Your task to perform on an android device: Show me the alarms in the clock app Image 0: 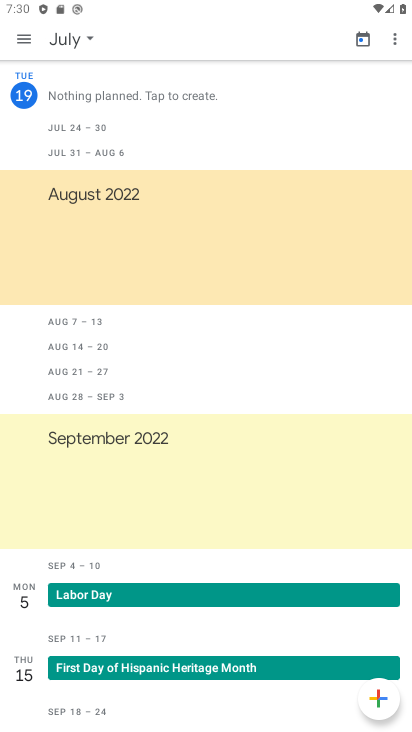
Step 0: press back button
Your task to perform on an android device: Show me the alarms in the clock app Image 1: 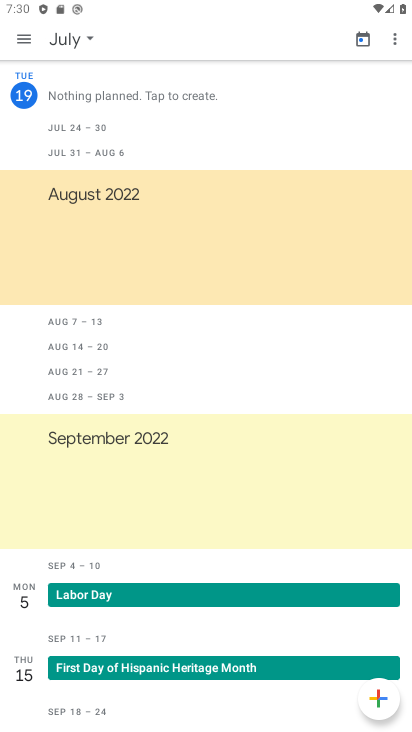
Step 1: press back button
Your task to perform on an android device: Show me the alarms in the clock app Image 2: 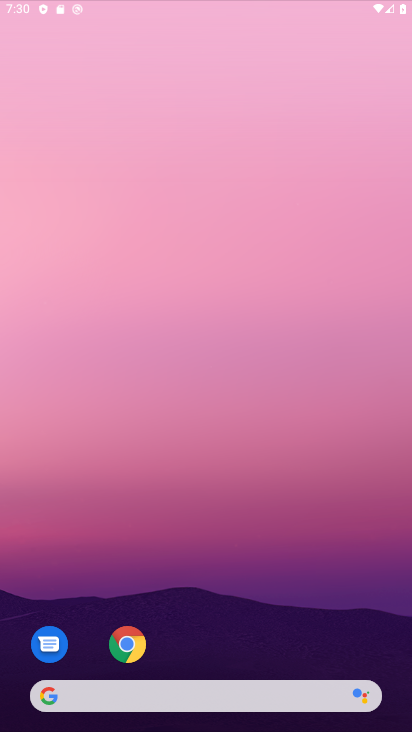
Step 2: press back button
Your task to perform on an android device: Show me the alarms in the clock app Image 3: 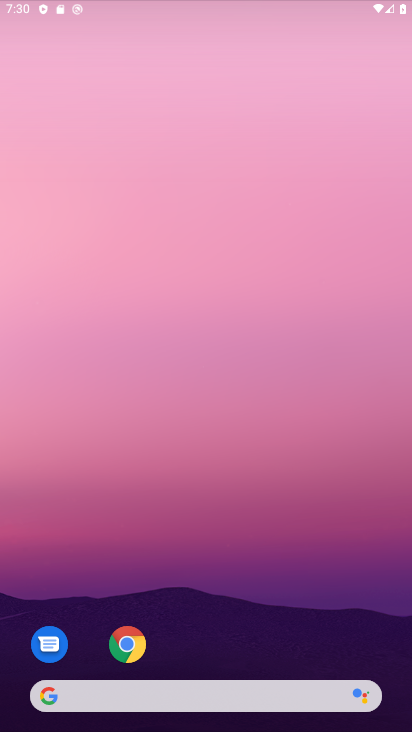
Step 3: press home button
Your task to perform on an android device: Show me the alarms in the clock app Image 4: 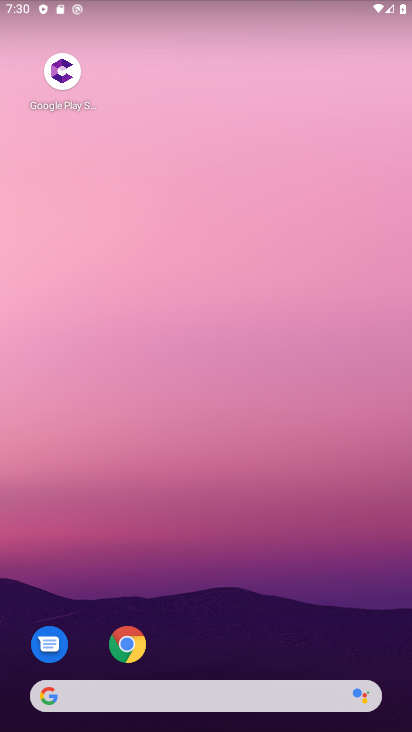
Step 4: press home button
Your task to perform on an android device: Show me the alarms in the clock app Image 5: 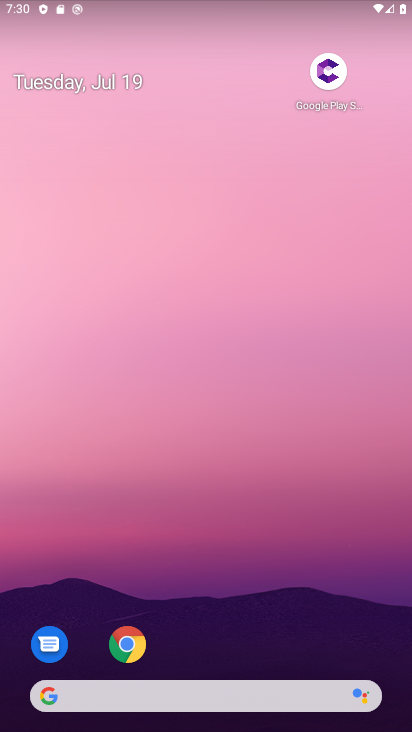
Step 5: drag from (121, 1) to (232, 160)
Your task to perform on an android device: Show me the alarms in the clock app Image 6: 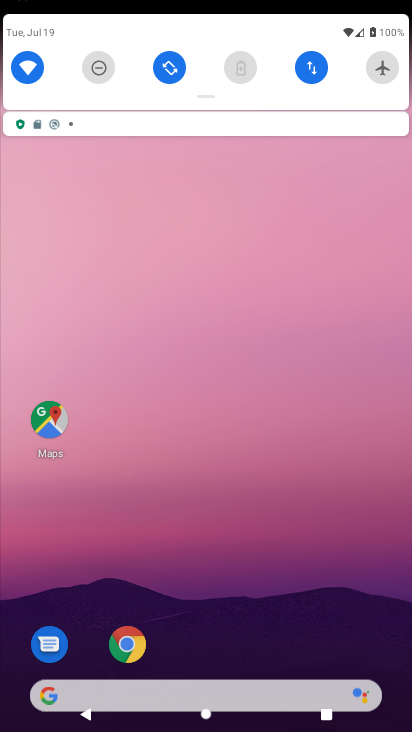
Step 6: drag from (306, 641) to (195, 50)
Your task to perform on an android device: Show me the alarms in the clock app Image 7: 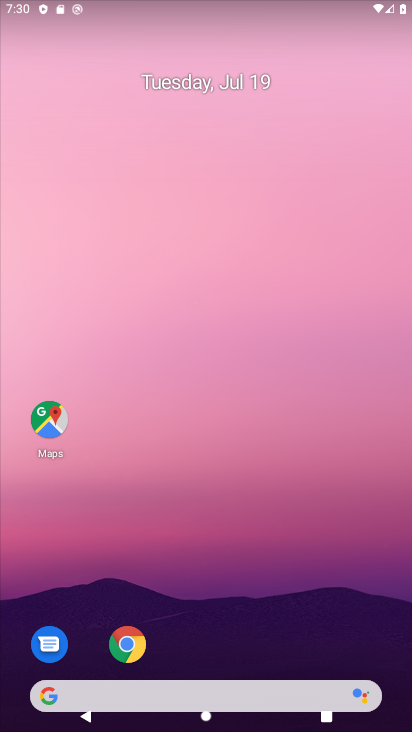
Step 7: drag from (250, 376) to (240, 153)
Your task to perform on an android device: Show me the alarms in the clock app Image 8: 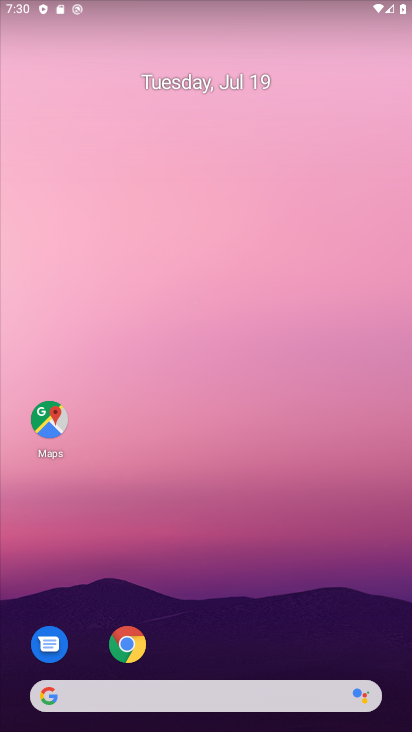
Step 8: drag from (212, 679) to (186, 227)
Your task to perform on an android device: Show me the alarms in the clock app Image 9: 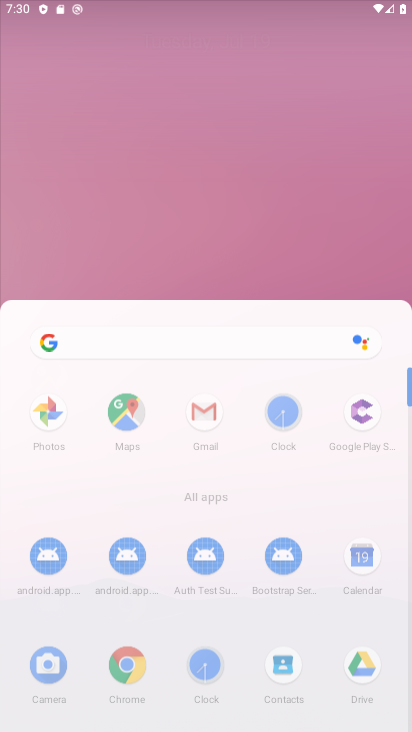
Step 9: drag from (235, 514) to (169, 15)
Your task to perform on an android device: Show me the alarms in the clock app Image 10: 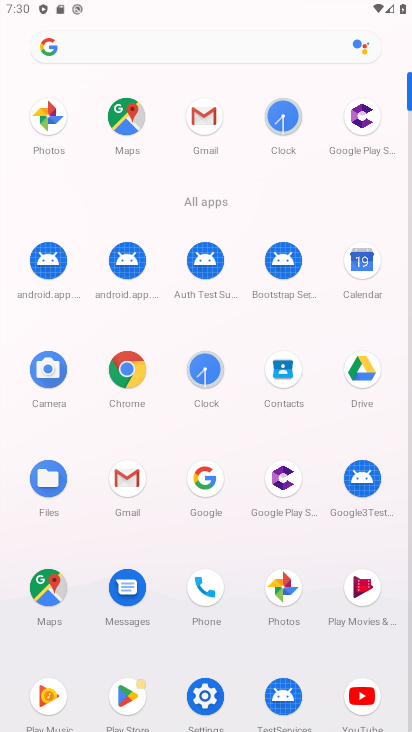
Step 10: drag from (147, 549) to (132, 239)
Your task to perform on an android device: Show me the alarms in the clock app Image 11: 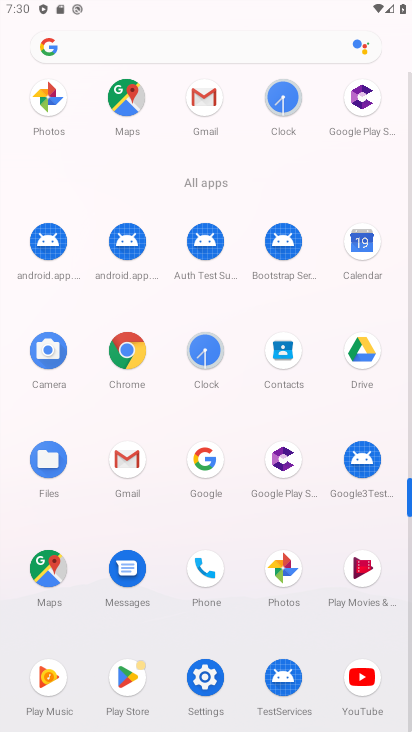
Step 11: click (284, 110)
Your task to perform on an android device: Show me the alarms in the clock app Image 12: 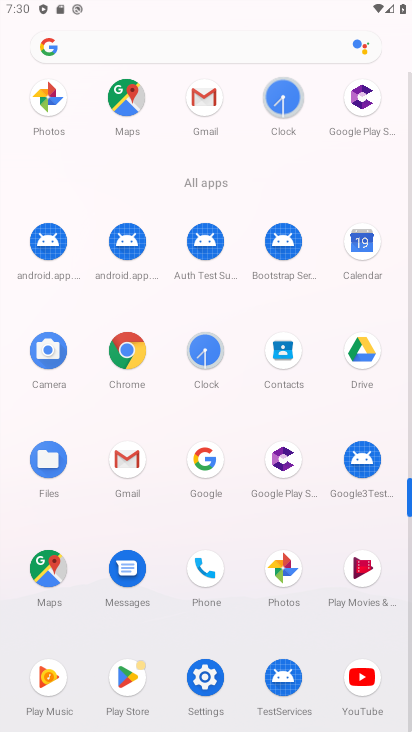
Step 12: click (285, 110)
Your task to perform on an android device: Show me the alarms in the clock app Image 13: 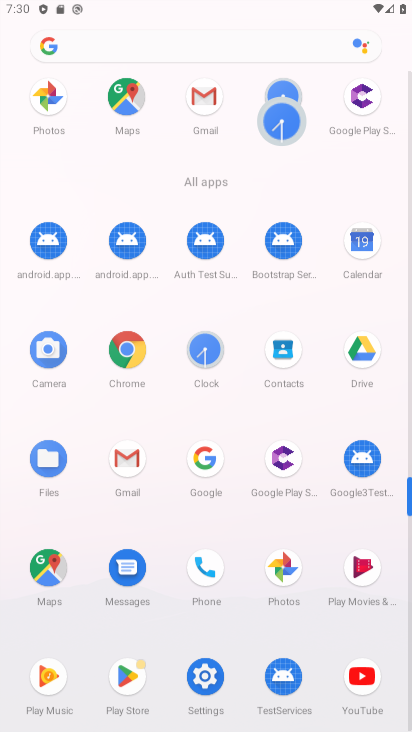
Step 13: click (291, 113)
Your task to perform on an android device: Show me the alarms in the clock app Image 14: 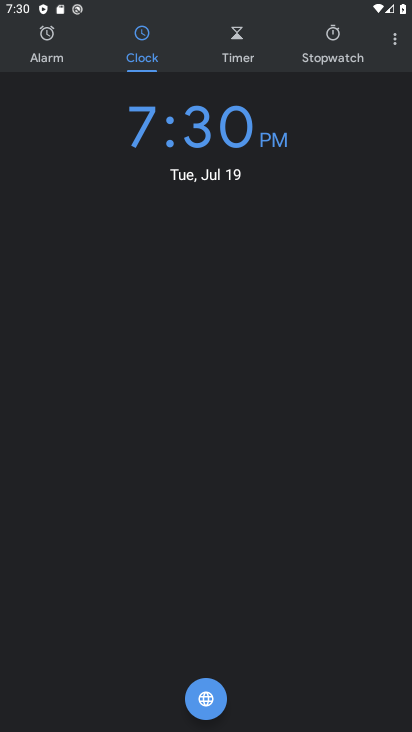
Step 14: click (46, 49)
Your task to perform on an android device: Show me the alarms in the clock app Image 15: 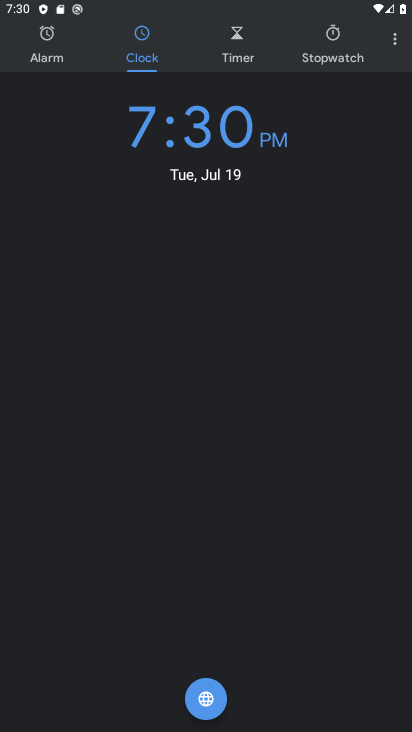
Step 15: click (46, 49)
Your task to perform on an android device: Show me the alarms in the clock app Image 16: 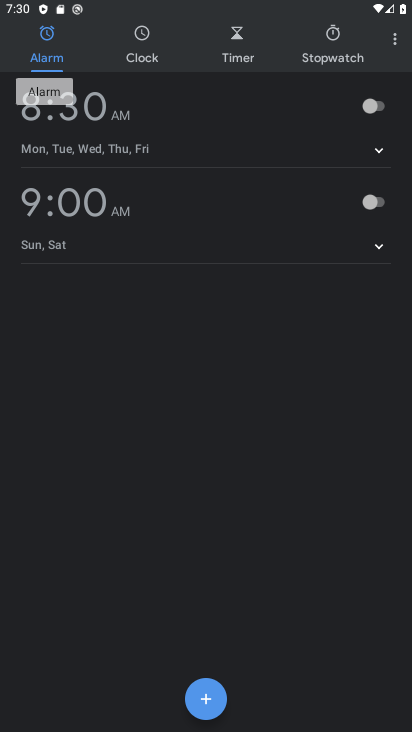
Step 16: task complete